Your task to perform on an android device: Go to Android settings Image 0: 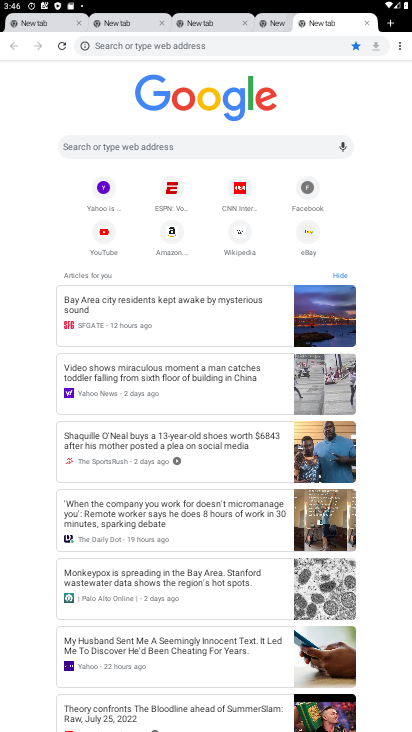
Step 0: press home button
Your task to perform on an android device: Go to Android settings Image 1: 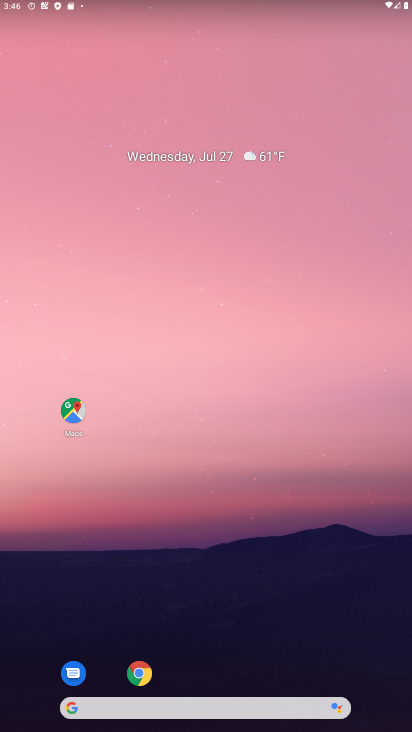
Step 1: drag from (13, 684) to (178, 71)
Your task to perform on an android device: Go to Android settings Image 2: 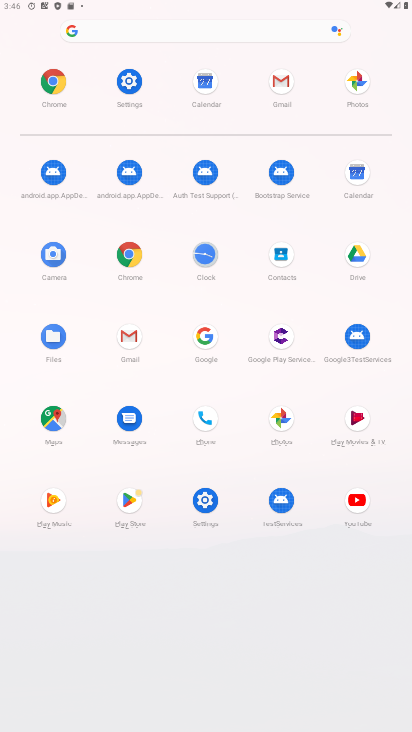
Step 2: click (215, 504)
Your task to perform on an android device: Go to Android settings Image 3: 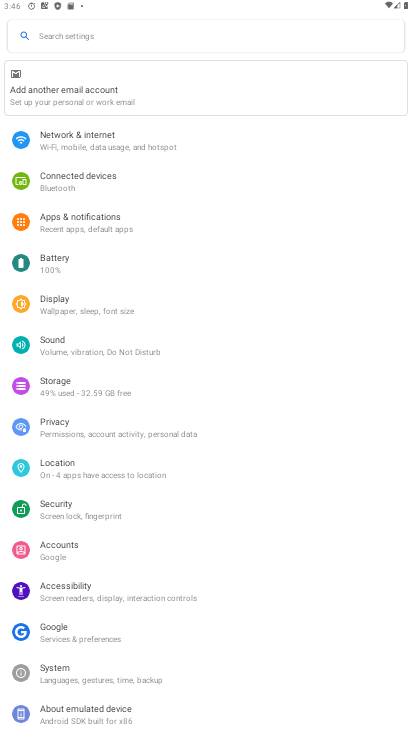
Step 3: drag from (189, 683) to (241, 371)
Your task to perform on an android device: Go to Android settings Image 4: 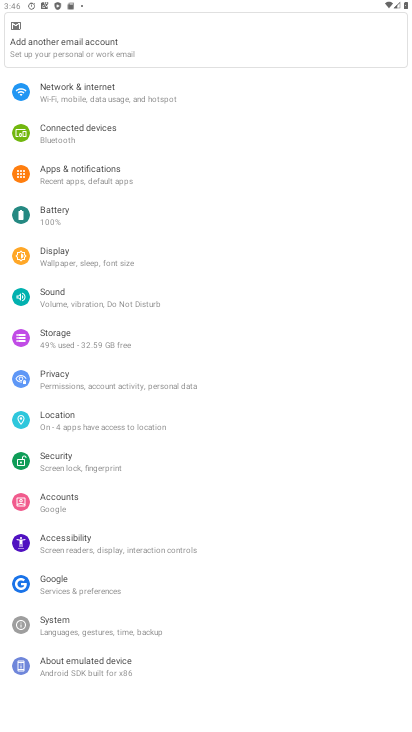
Step 4: click (83, 663)
Your task to perform on an android device: Go to Android settings Image 5: 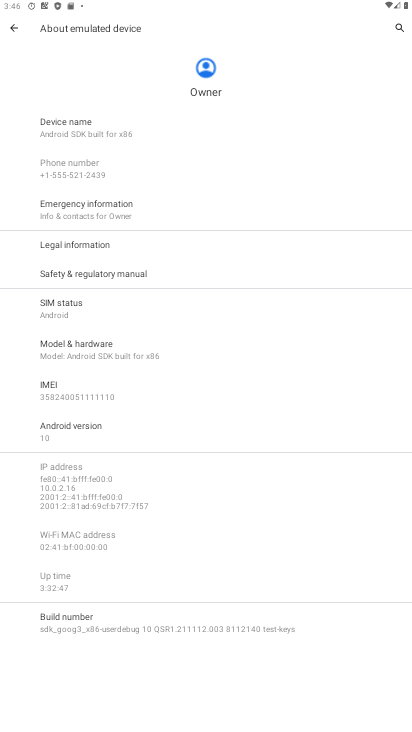
Step 5: click (89, 425)
Your task to perform on an android device: Go to Android settings Image 6: 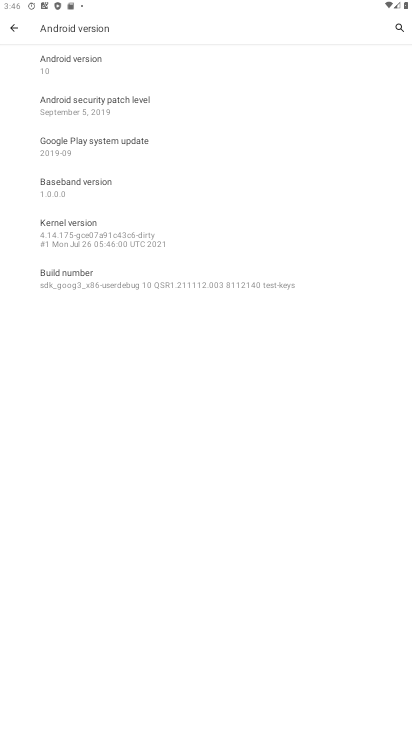
Step 6: task complete